Your task to perform on an android device: Open Google Maps Image 0: 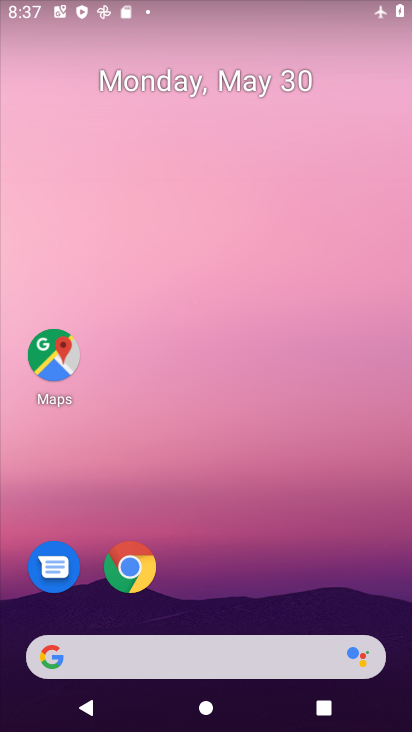
Step 0: click (72, 379)
Your task to perform on an android device: Open Google Maps Image 1: 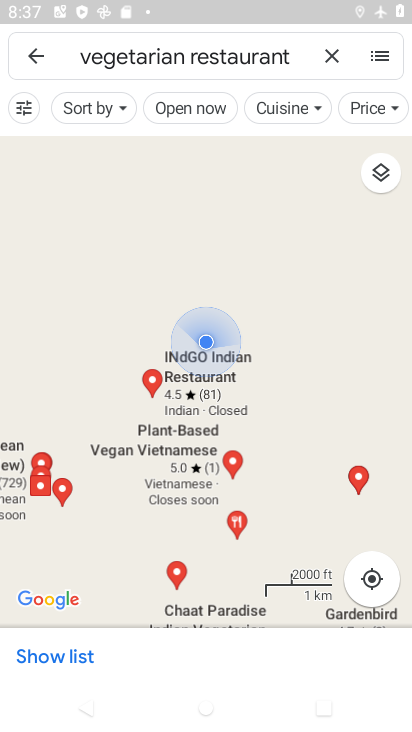
Step 1: task complete